Your task to perform on an android device: toggle location history Image 0: 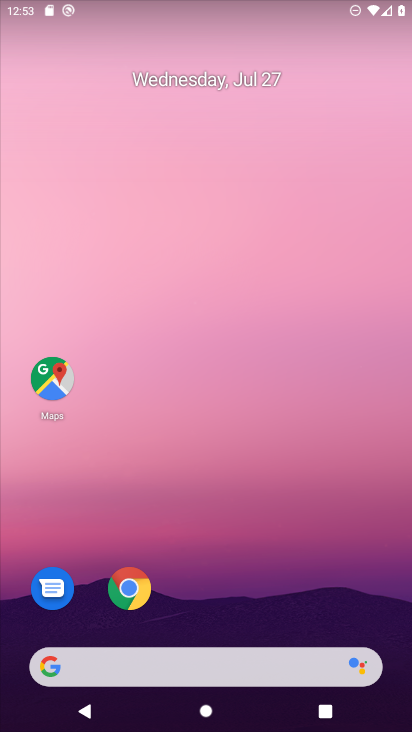
Step 0: click (268, 1)
Your task to perform on an android device: toggle location history Image 1: 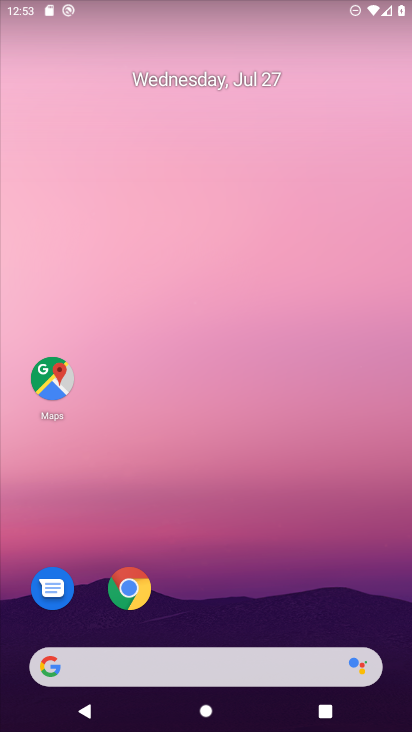
Step 1: drag from (15, 686) to (228, 226)
Your task to perform on an android device: toggle location history Image 2: 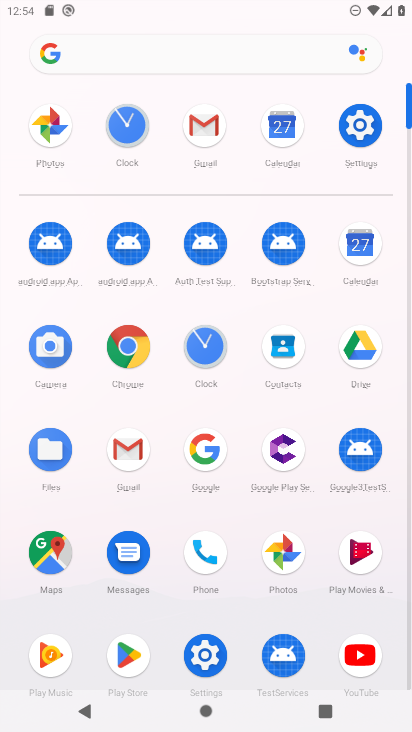
Step 2: click (201, 663)
Your task to perform on an android device: toggle location history Image 3: 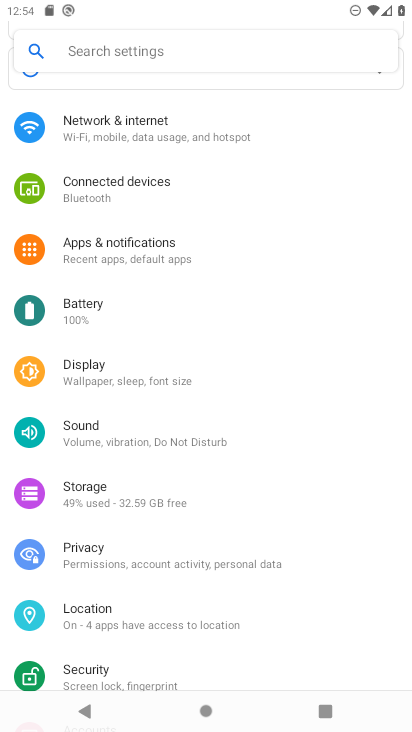
Step 3: click (110, 621)
Your task to perform on an android device: toggle location history Image 4: 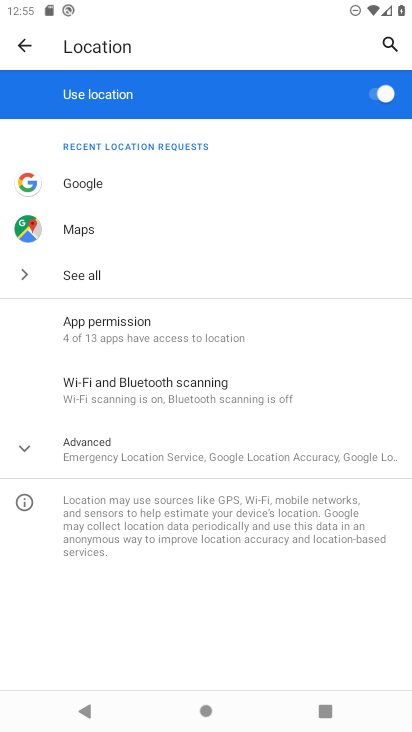
Step 4: click (89, 459)
Your task to perform on an android device: toggle location history Image 5: 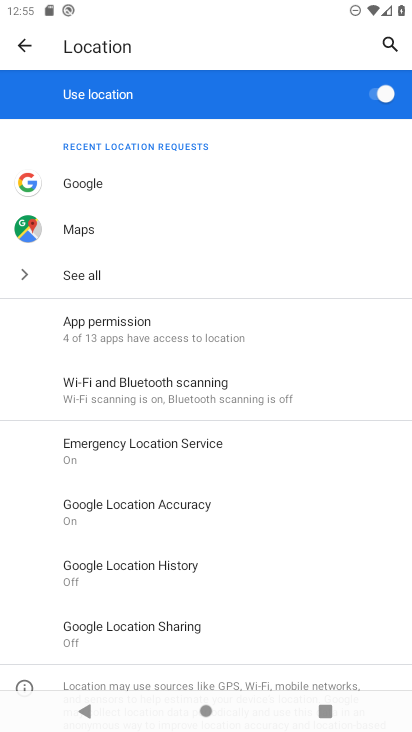
Step 5: task complete